Your task to perform on an android device: turn on wifi Image 0: 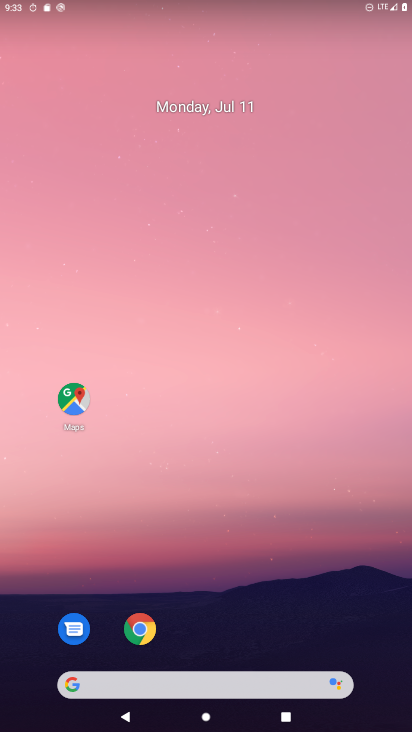
Step 0: drag from (209, 7) to (242, 495)
Your task to perform on an android device: turn on wifi Image 1: 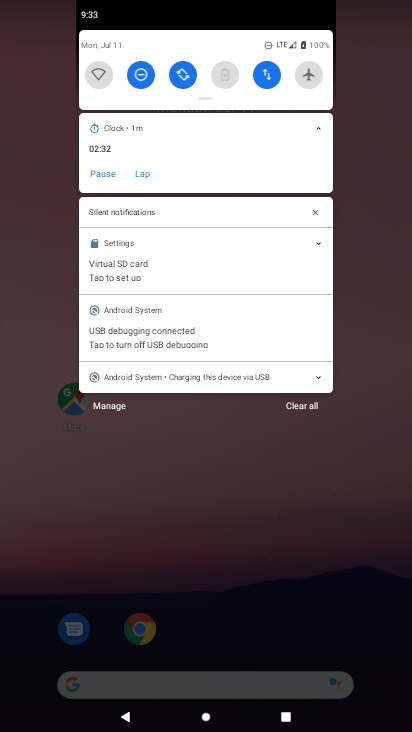
Step 1: click (102, 81)
Your task to perform on an android device: turn on wifi Image 2: 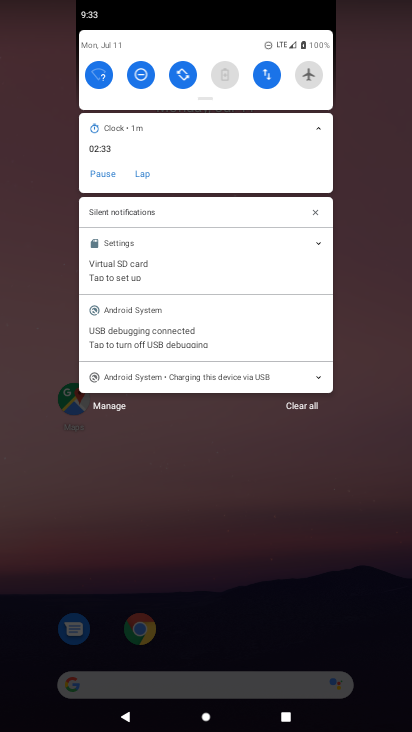
Step 2: task complete